Your task to perform on an android device: change the clock display to show seconds Image 0: 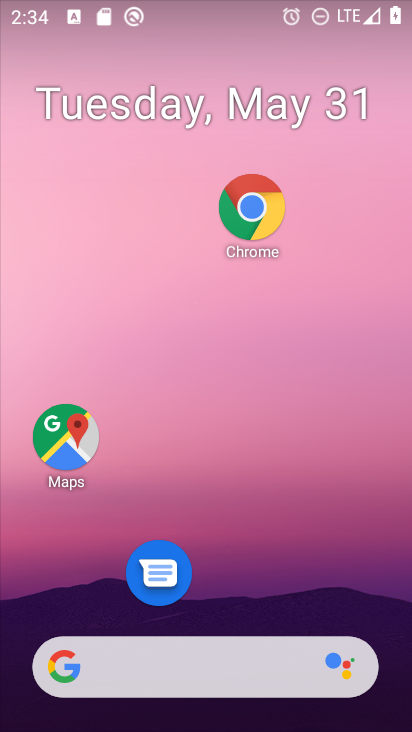
Step 0: click (307, 298)
Your task to perform on an android device: change the clock display to show seconds Image 1: 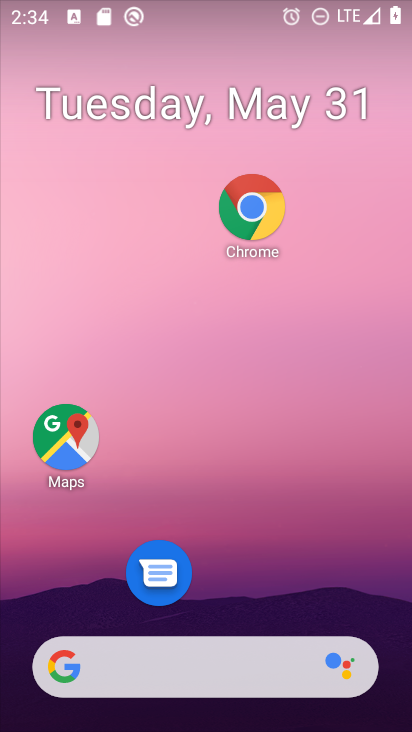
Step 1: drag from (297, 445) to (324, 186)
Your task to perform on an android device: change the clock display to show seconds Image 2: 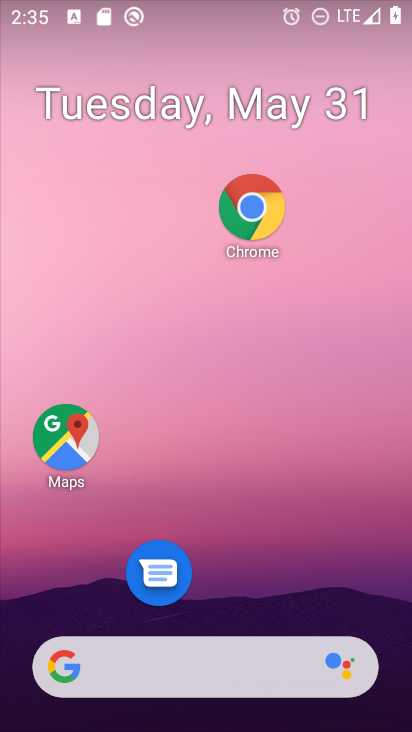
Step 2: drag from (311, 621) to (368, 93)
Your task to perform on an android device: change the clock display to show seconds Image 3: 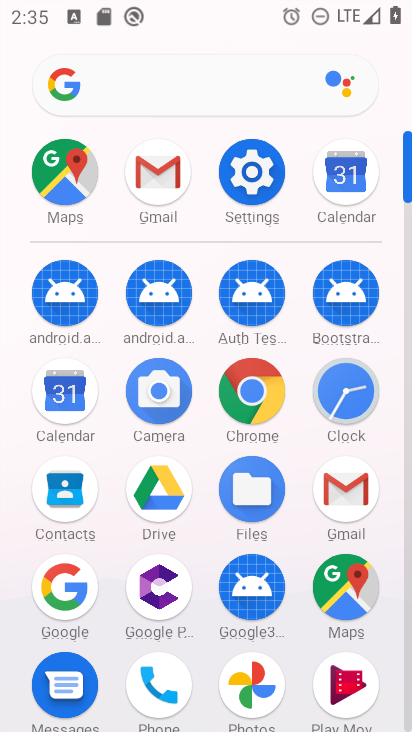
Step 3: click (275, 172)
Your task to perform on an android device: change the clock display to show seconds Image 4: 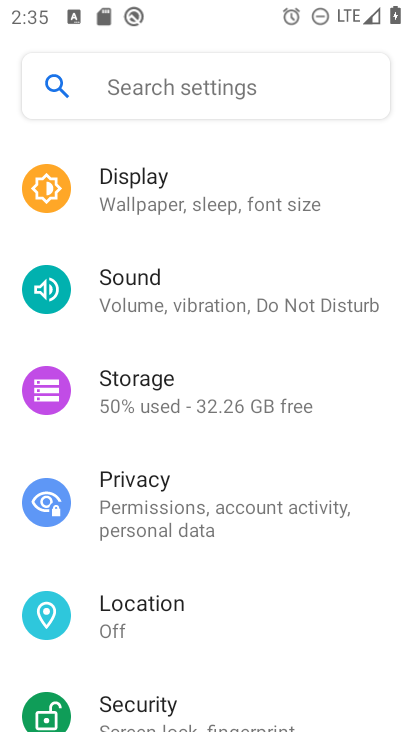
Step 4: press home button
Your task to perform on an android device: change the clock display to show seconds Image 5: 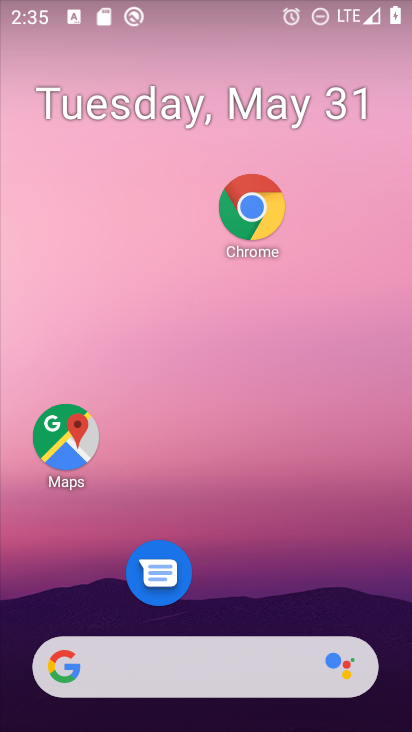
Step 5: drag from (282, 529) to (355, 110)
Your task to perform on an android device: change the clock display to show seconds Image 6: 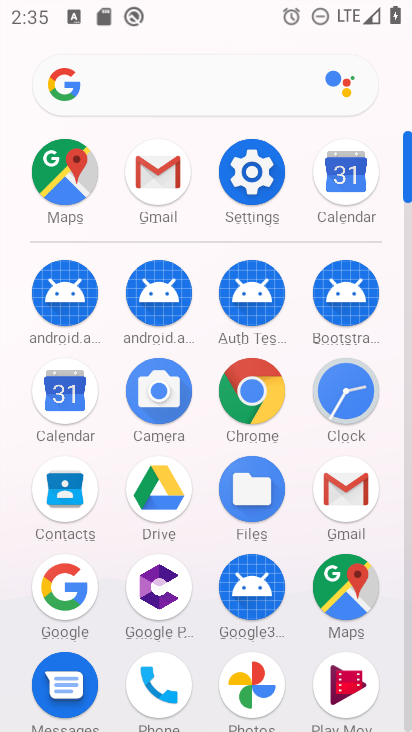
Step 6: click (354, 390)
Your task to perform on an android device: change the clock display to show seconds Image 7: 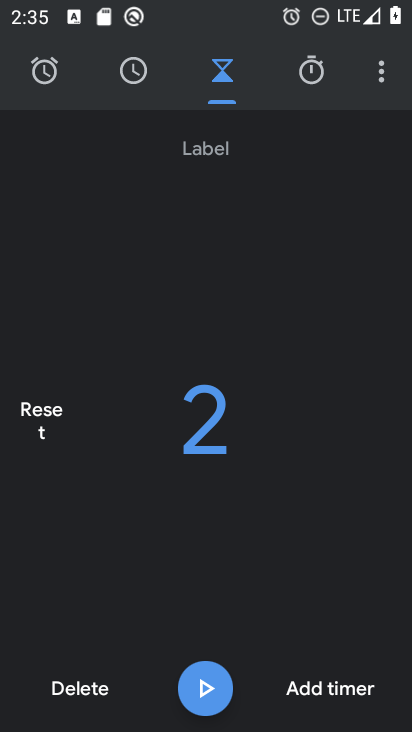
Step 7: click (388, 80)
Your task to perform on an android device: change the clock display to show seconds Image 8: 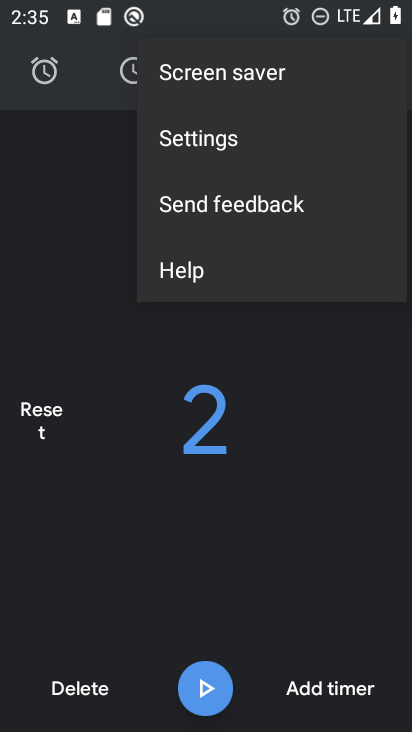
Step 8: click (267, 138)
Your task to perform on an android device: change the clock display to show seconds Image 9: 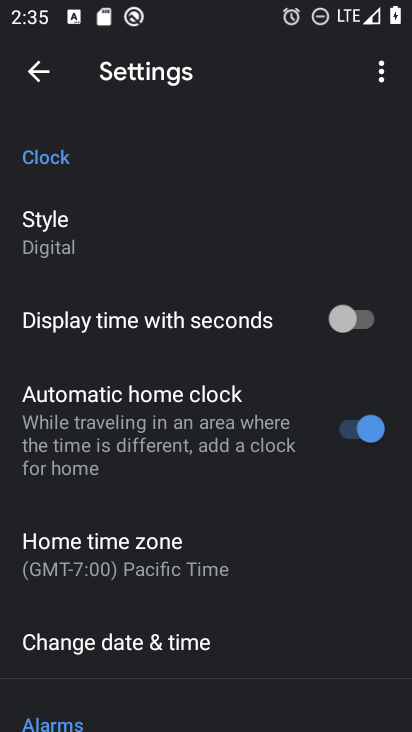
Step 9: click (369, 330)
Your task to perform on an android device: change the clock display to show seconds Image 10: 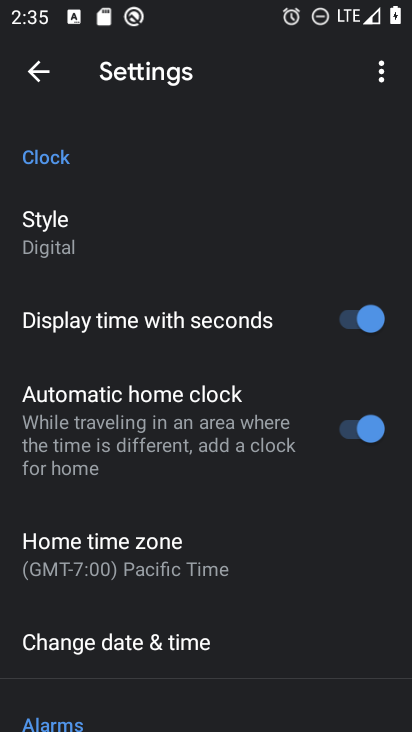
Step 10: task complete